Your task to perform on an android device: Do I have any events tomorrow? Image 0: 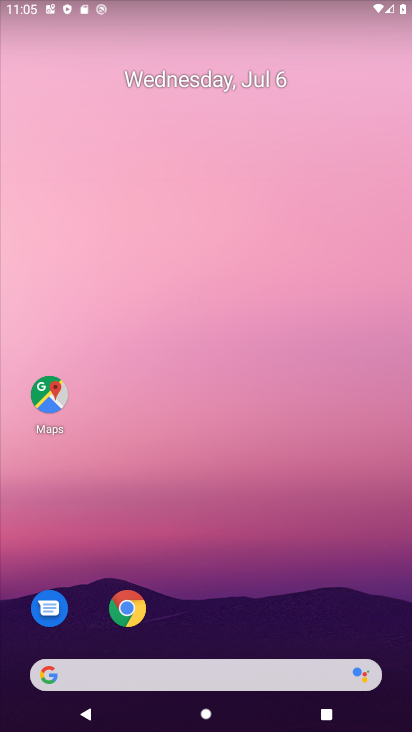
Step 0: drag from (213, 644) to (184, 141)
Your task to perform on an android device: Do I have any events tomorrow? Image 1: 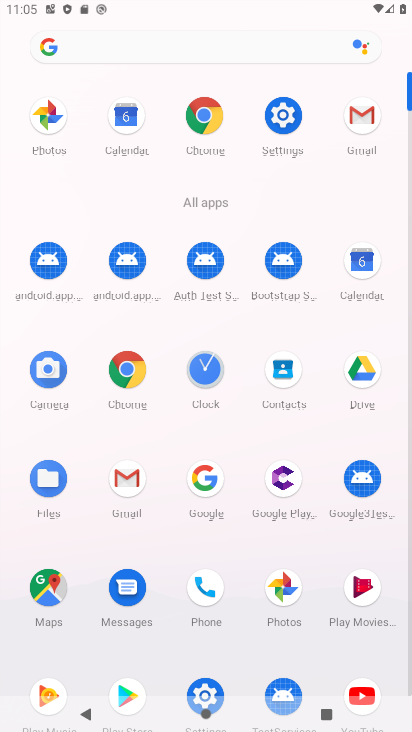
Step 1: click (373, 273)
Your task to perform on an android device: Do I have any events tomorrow? Image 2: 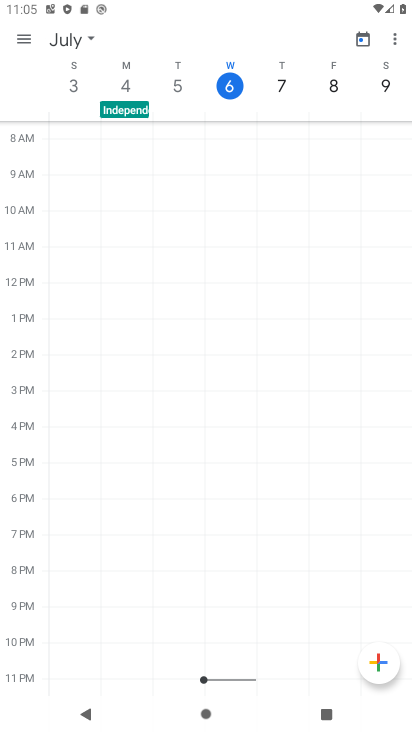
Step 2: click (277, 87)
Your task to perform on an android device: Do I have any events tomorrow? Image 3: 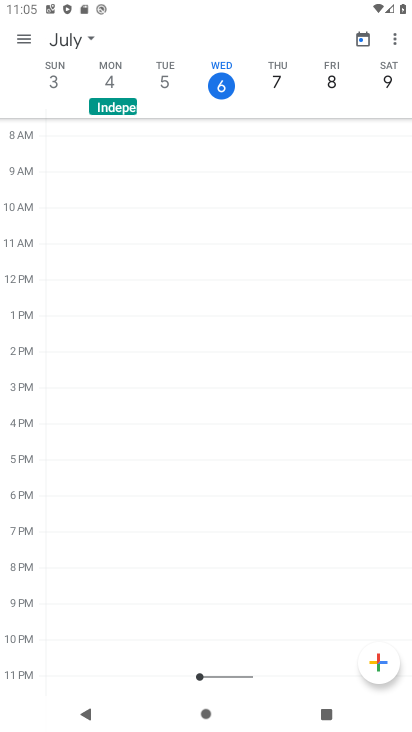
Step 3: click (277, 87)
Your task to perform on an android device: Do I have any events tomorrow? Image 4: 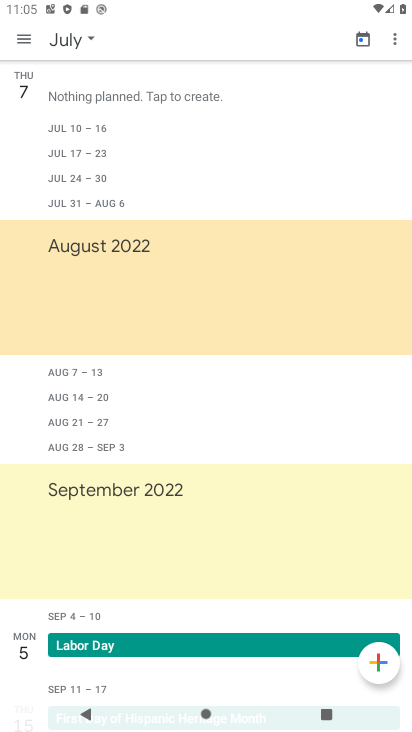
Step 4: task complete